Your task to perform on an android device: check android version Image 0: 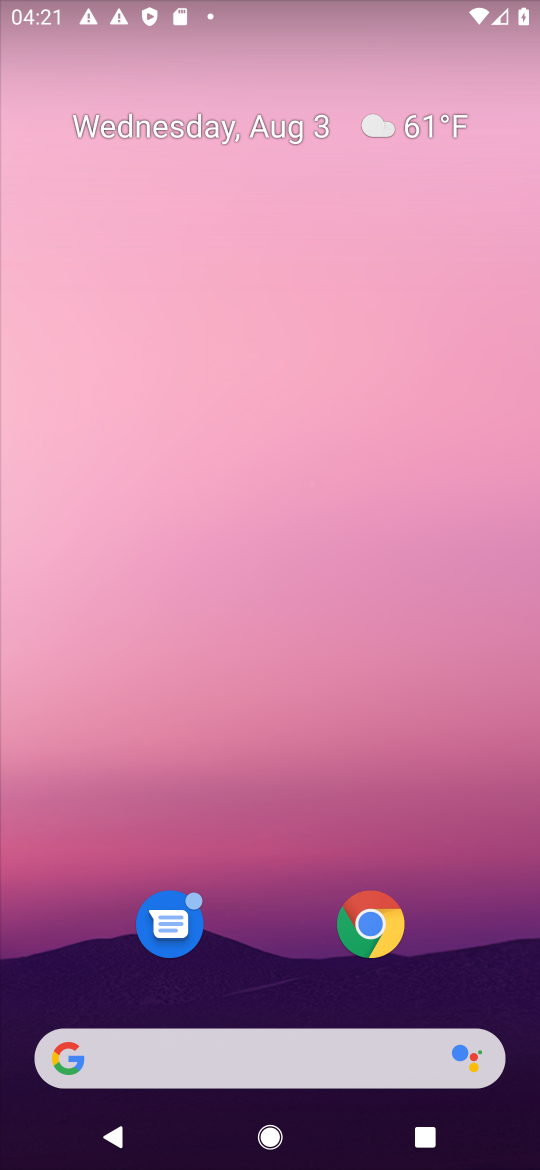
Step 0: drag from (258, 952) to (280, 277)
Your task to perform on an android device: check android version Image 1: 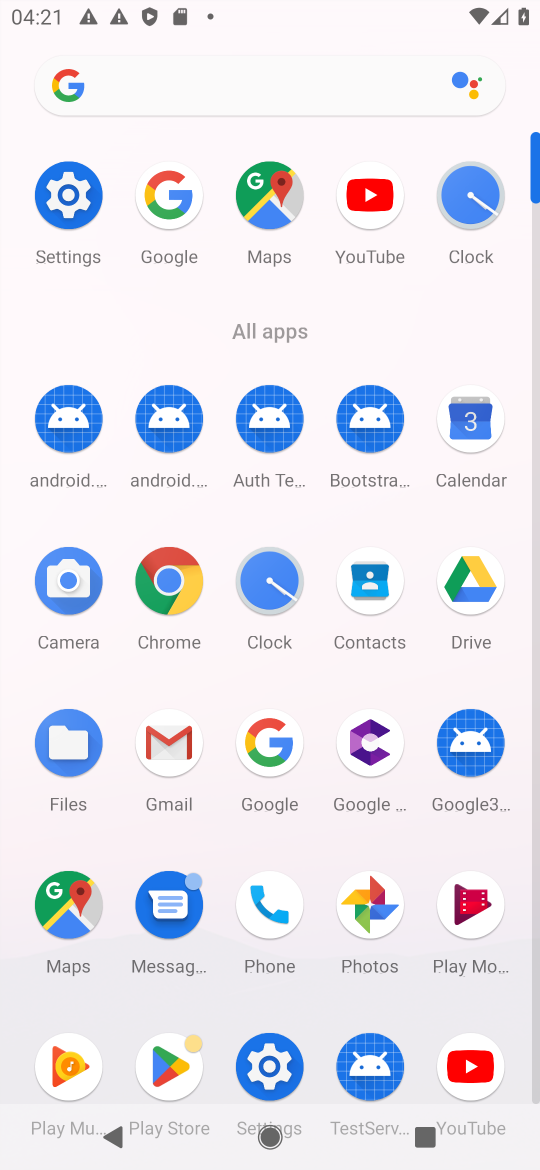
Step 1: click (62, 184)
Your task to perform on an android device: check android version Image 2: 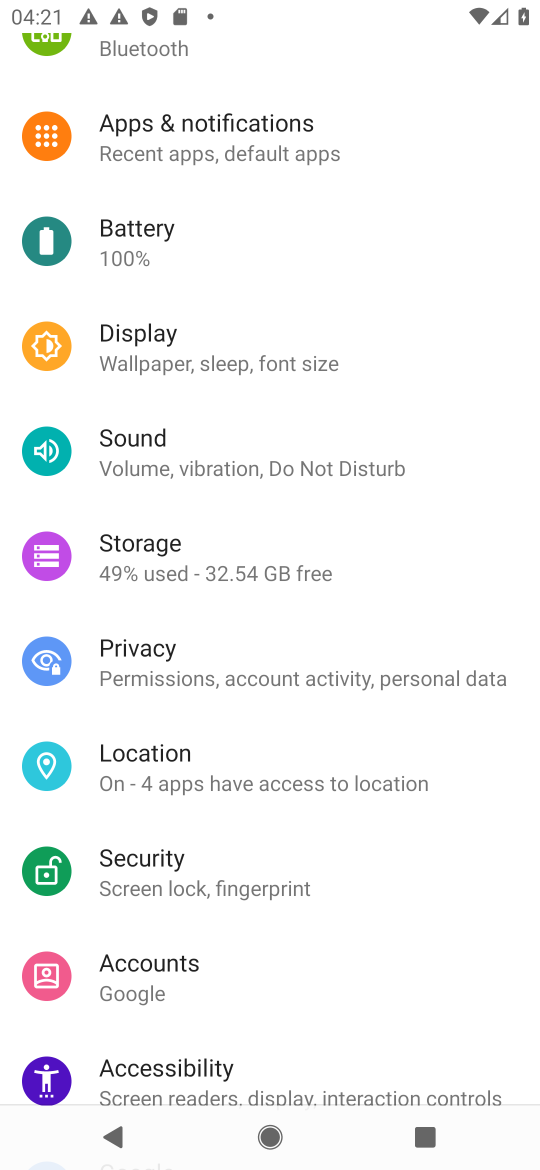
Step 2: drag from (380, 1033) to (400, 302)
Your task to perform on an android device: check android version Image 3: 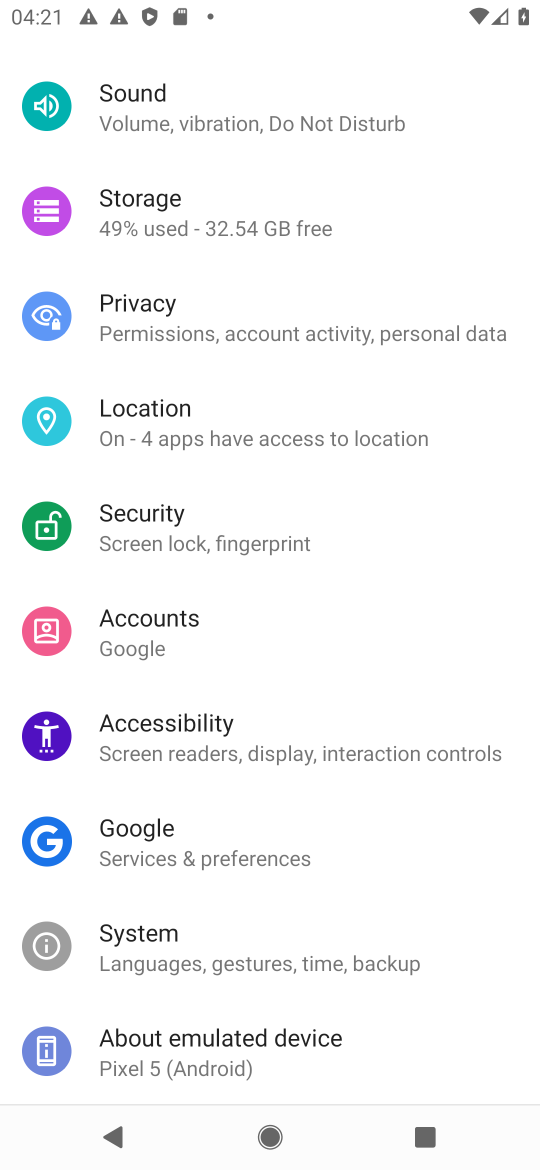
Step 3: click (315, 1037)
Your task to perform on an android device: check android version Image 4: 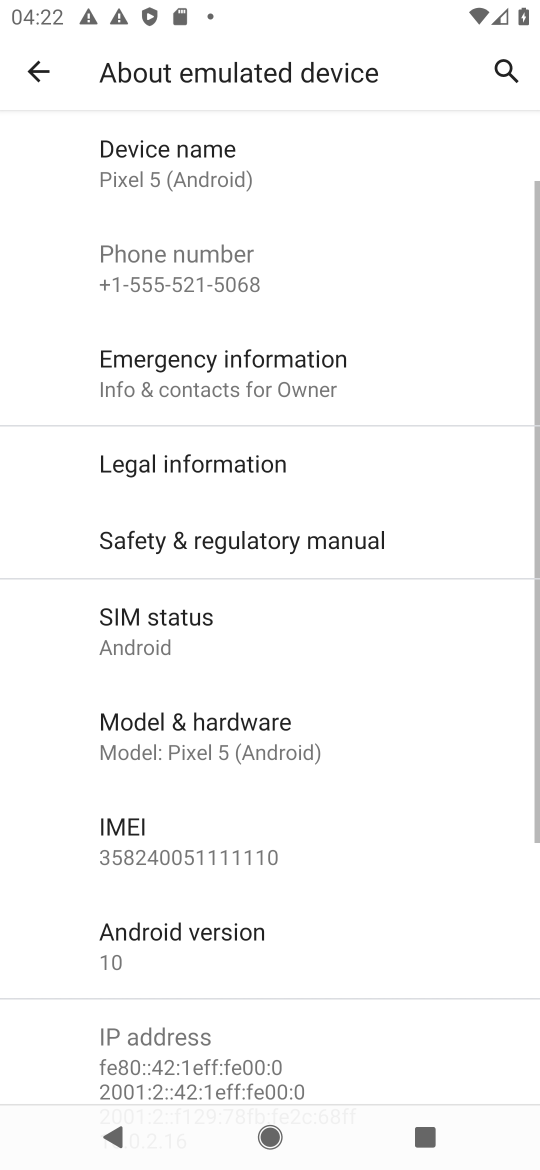
Step 4: click (247, 931)
Your task to perform on an android device: check android version Image 5: 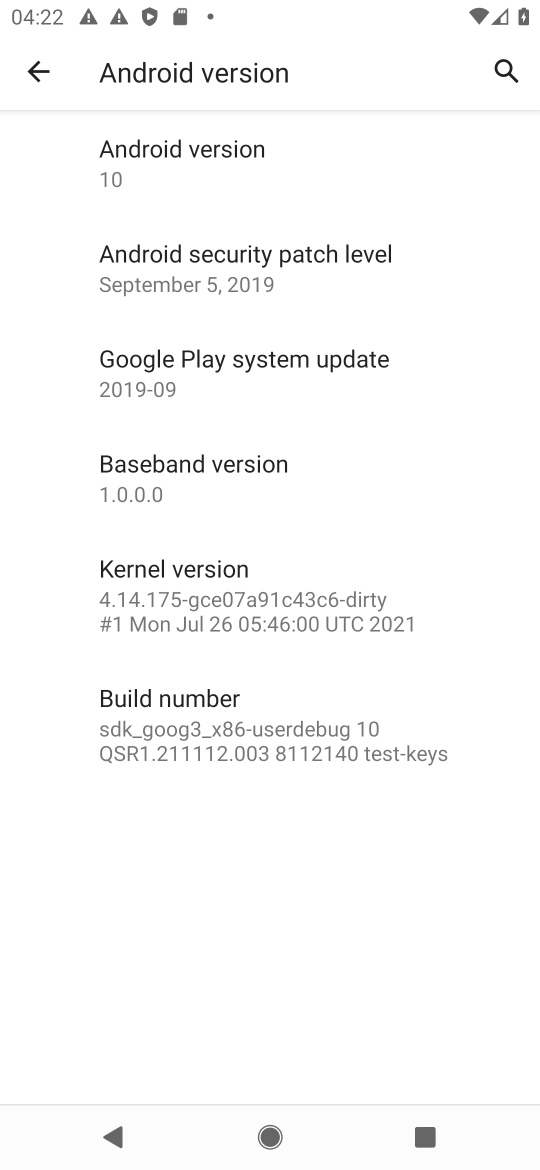
Step 5: click (168, 185)
Your task to perform on an android device: check android version Image 6: 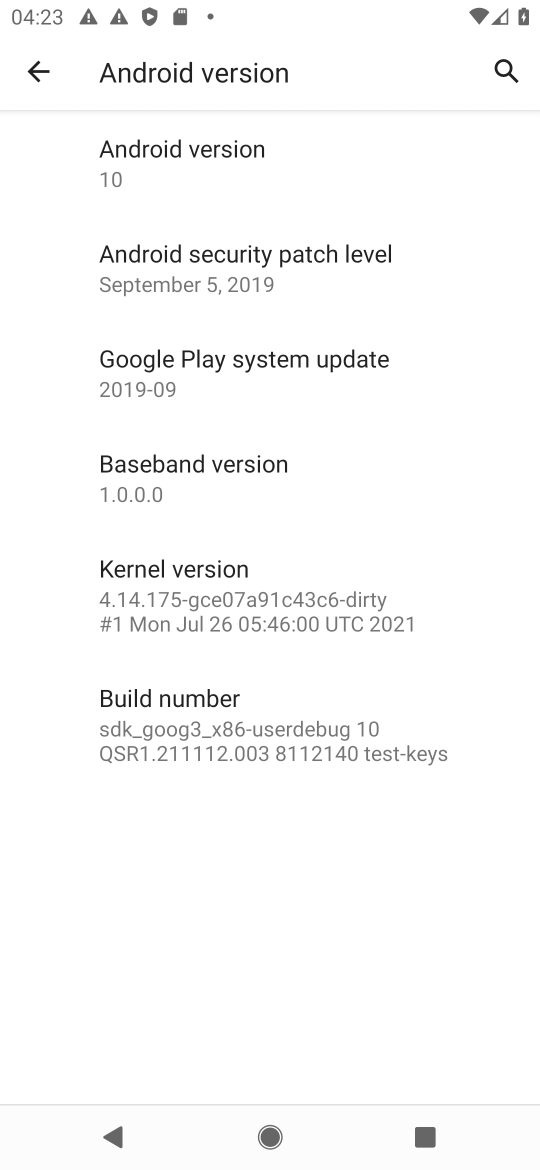
Step 6: task complete